Your task to perform on an android device: toggle javascript in the chrome app Image 0: 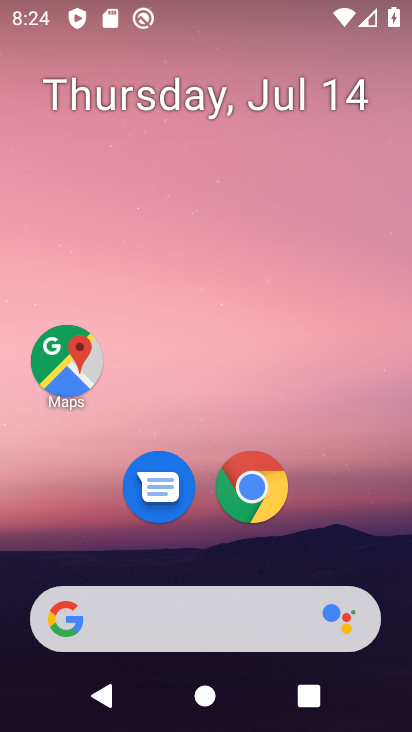
Step 0: click (259, 484)
Your task to perform on an android device: toggle javascript in the chrome app Image 1: 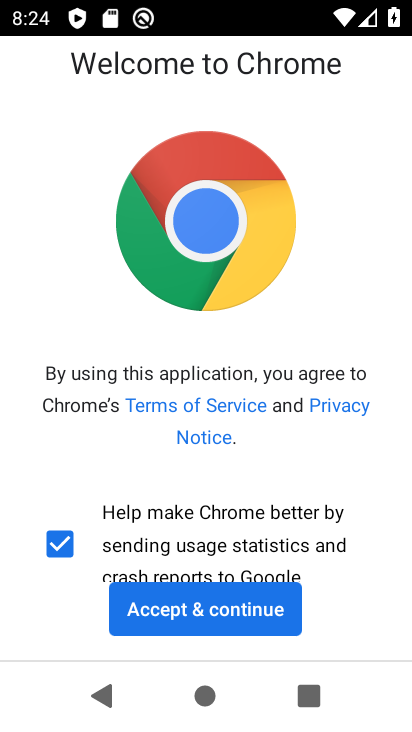
Step 1: click (269, 606)
Your task to perform on an android device: toggle javascript in the chrome app Image 2: 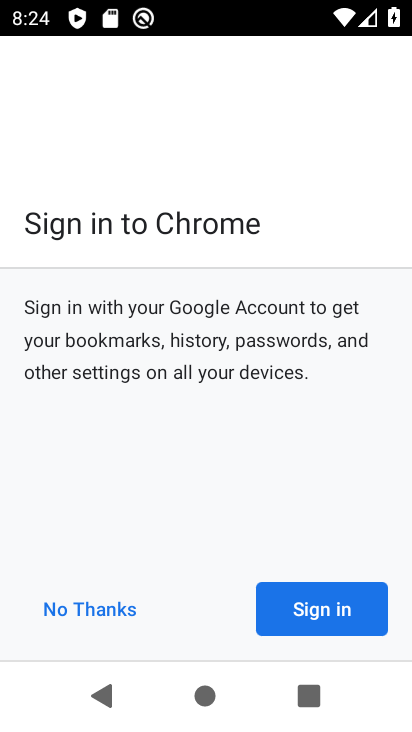
Step 2: click (283, 603)
Your task to perform on an android device: toggle javascript in the chrome app Image 3: 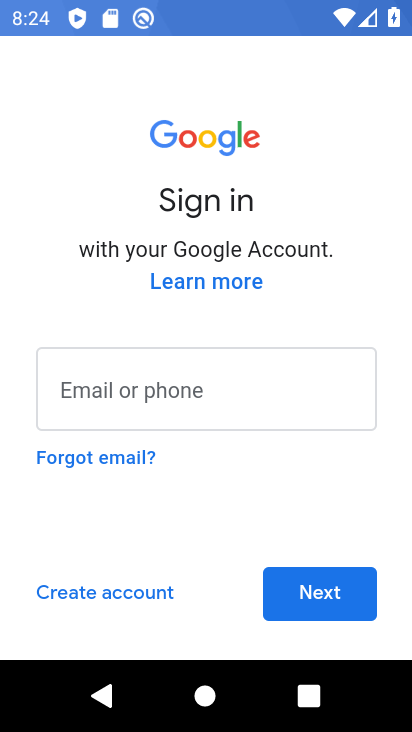
Step 3: click (360, 584)
Your task to perform on an android device: toggle javascript in the chrome app Image 4: 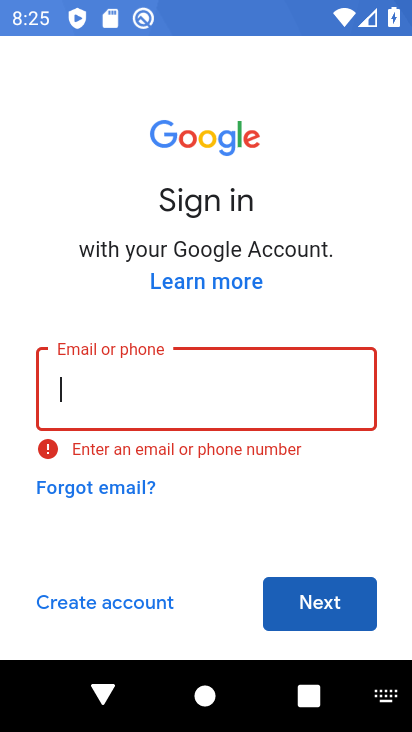
Step 4: click (345, 587)
Your task to perform on an android device: toggle javascript in the chrome app Image 5: 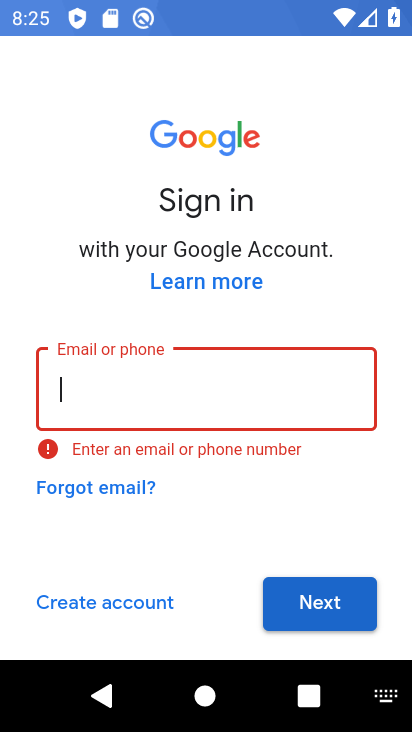
Step 5: press back button
Your task to perform on an android device: toggle javascript in the chrome app Image 6: 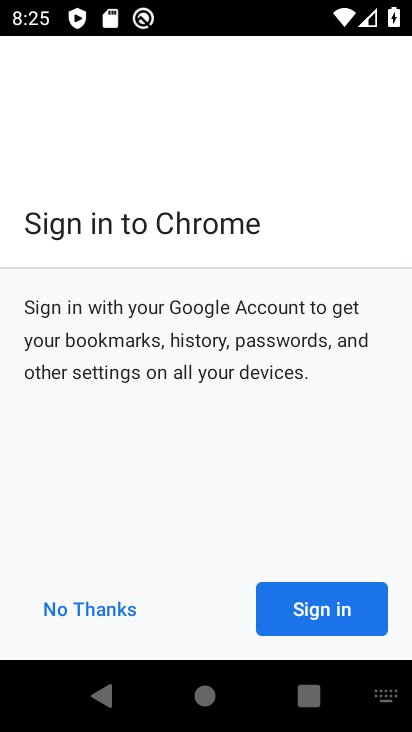
Step 6: click (64, 633)
Your task to perform on an android device: toggle javascript in the chrome app Image 7: 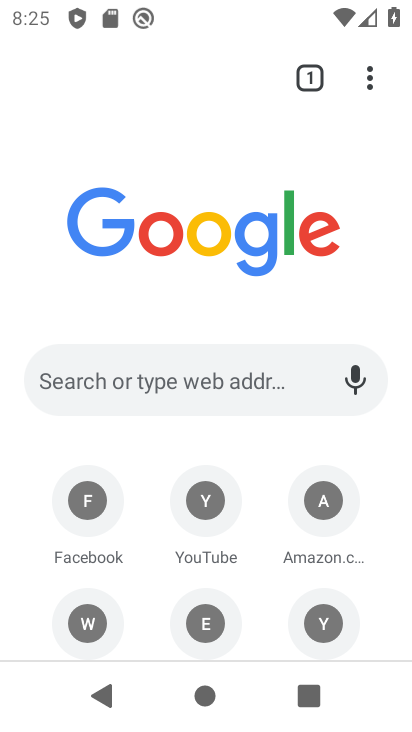
Step 7: drag from (370, 81) to (113, 536)
Your task to perform on an android device: toggle javascript in the chrome app Image 8: 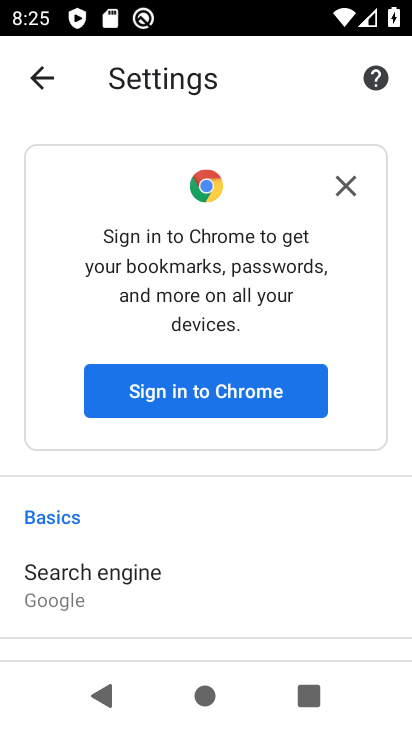
Step 8: drag from (177, 631) to (272, 189)
Your task to perform on an android device: toggle javascript in the chrome app Image 9: 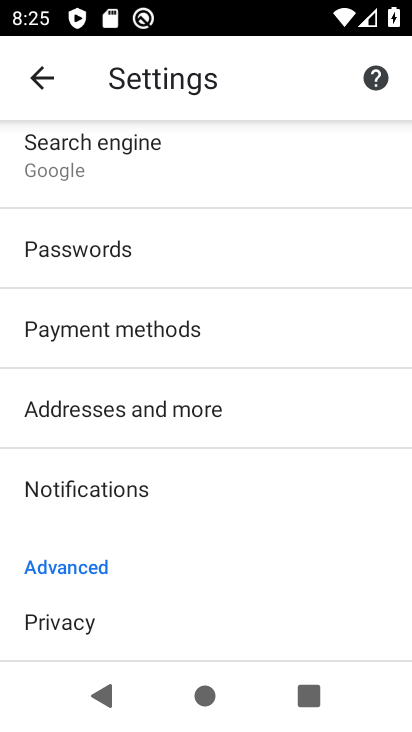
Step 9: drag from (152, 579) to (268, 149)
Your task to perform on an android device: toggle javascript in the chrome app Image 10: 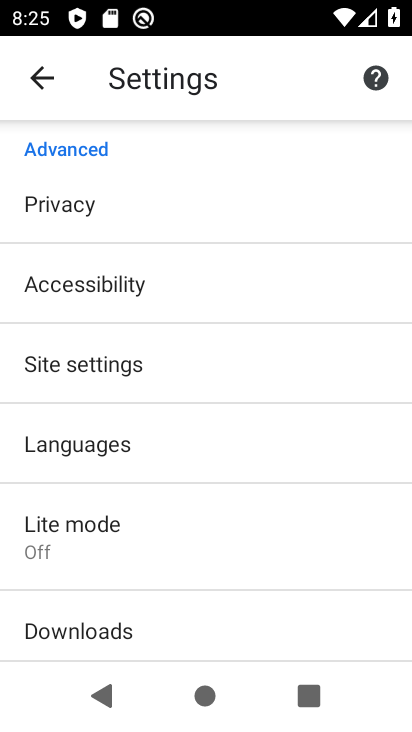
Step 10: click (139, 370)
Your task to perform on an android device: toggle javascript in the chrome app Image 11: 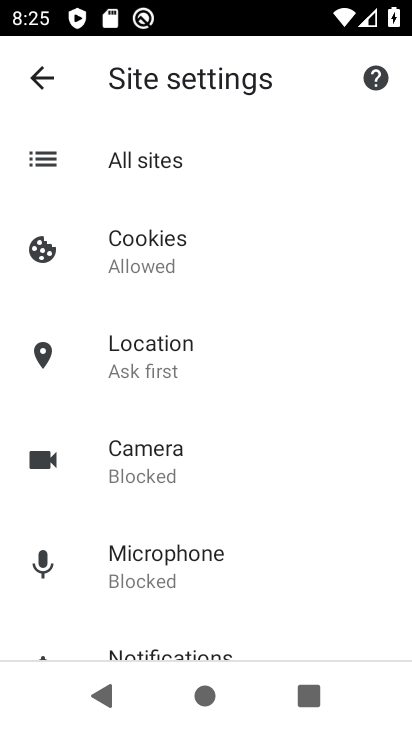
Step 11: drag from (165, 624) to (278, 92)
Your task to perform on an android device: toggle javascript in the chrome app Image 12: 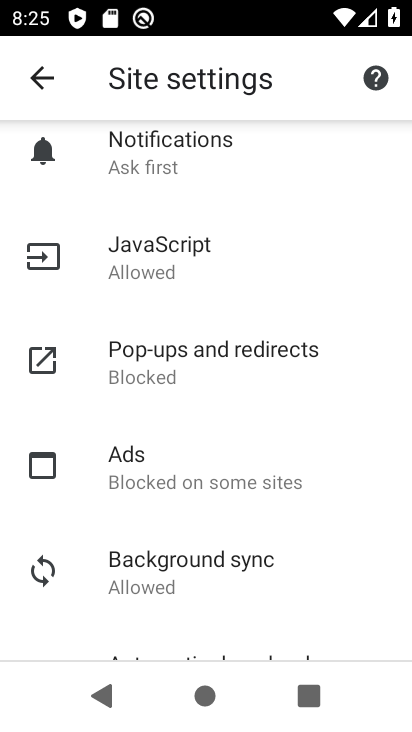
Step 12: click (152, 252)
Your task to perform on an android device: toggle javascript in the chrome app Image 13: 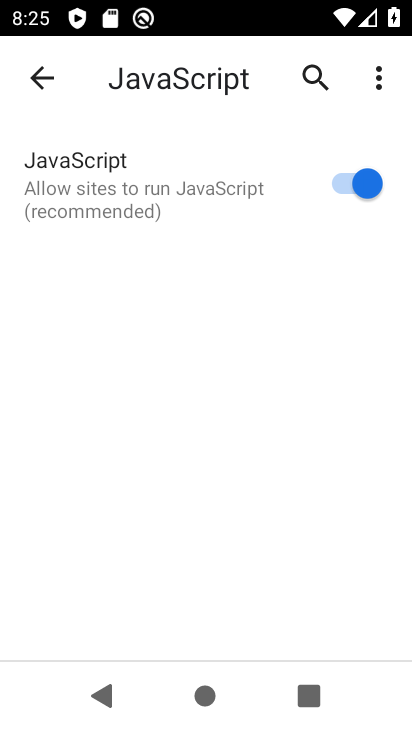
Step 13: click (362, 180)
Your task to perform on an android device: toggle javascript in the chrome app Image 14: 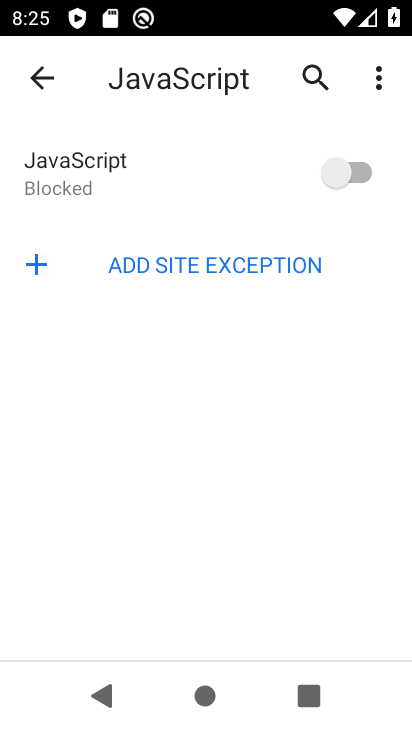
Step 14: task complete